Your task to perform on an android device: Open eBay Image 0: 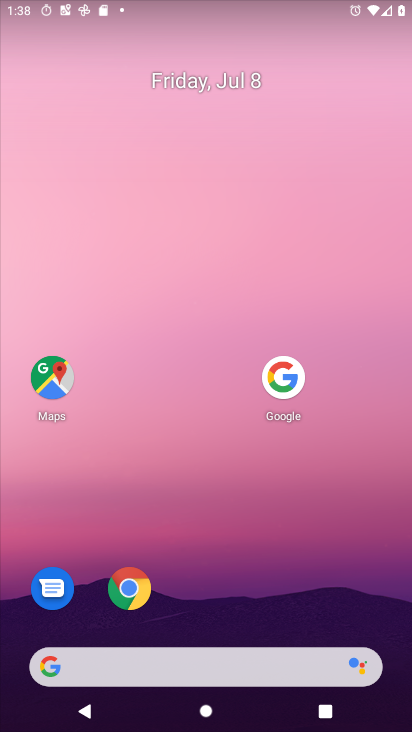
Step 0: click (139, 584)
Your task to perform on an android device: Open eBay Image 1: 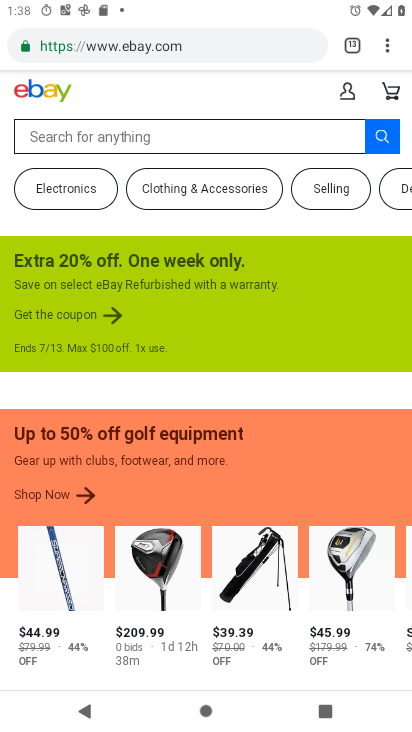
Step 1: task complete